Your task to perform on an android device: Open settings on Google Maps Image 0: 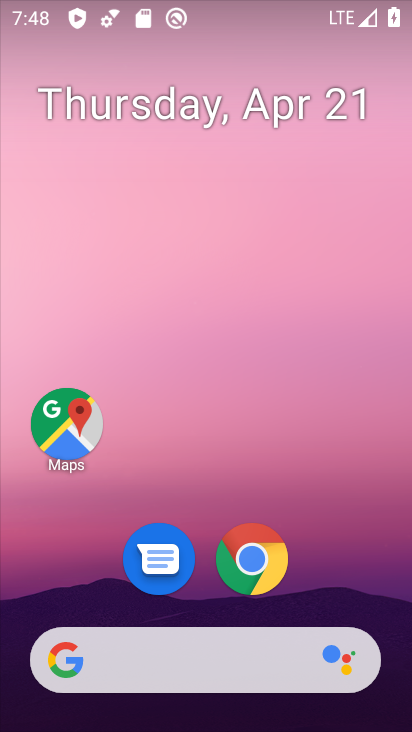
Step 0: drag from (382, 515) to (374, 148)
Your task to perform on an android device: Open settings on Google Maps Image 1: 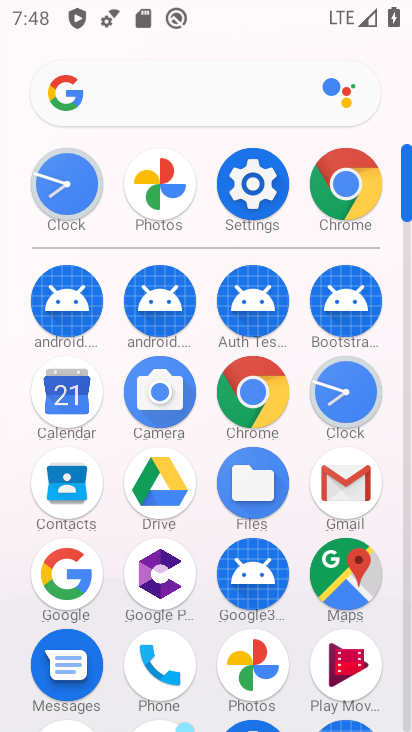
Step 1: click (345, 586)
Your task to perform on an android device: Open settings on Google Maps Image 2: 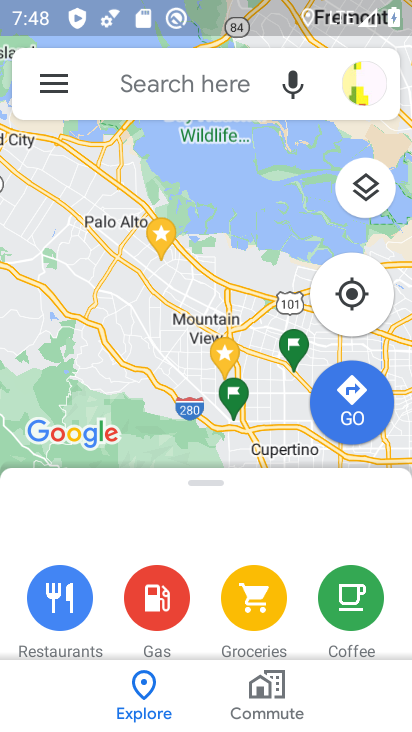
Step 2: click (54, 93)
Your task to perform on an android device: Open settings on Google Maps Image 3: 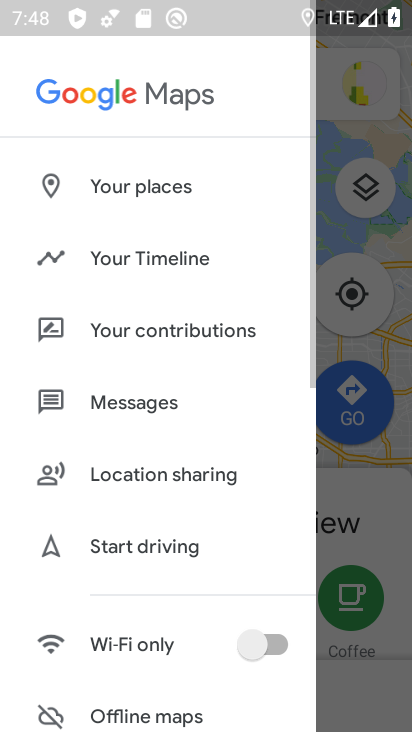
Step 3: click (109, 271)
Your task to perform on an android device: Open settings on Google Maps Image 4: 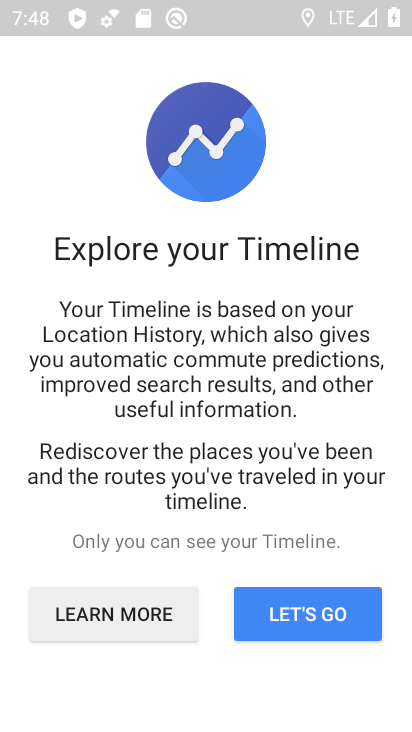
Step 4: click (297, 625)
Your task to perform on an android device: Open settings on Google Maps Image 5: 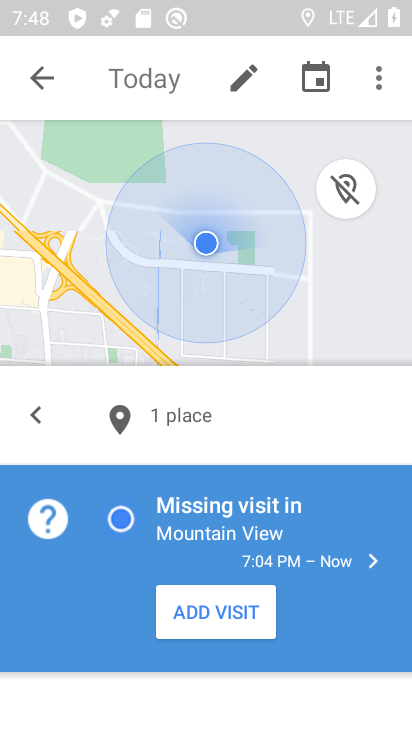
Step 5: click (385, 80)
Your task to perform on an android device: Open settings on Google Maps Image 6: 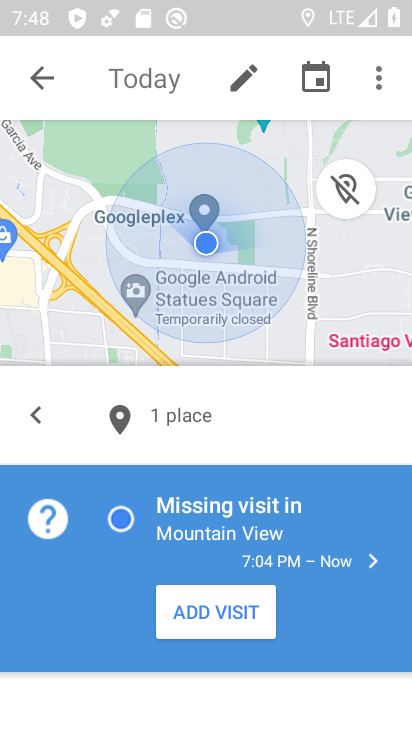
Step 6: click (378, 94)
Your task to perform on an android device: Open settings on Google Maps Image 7: 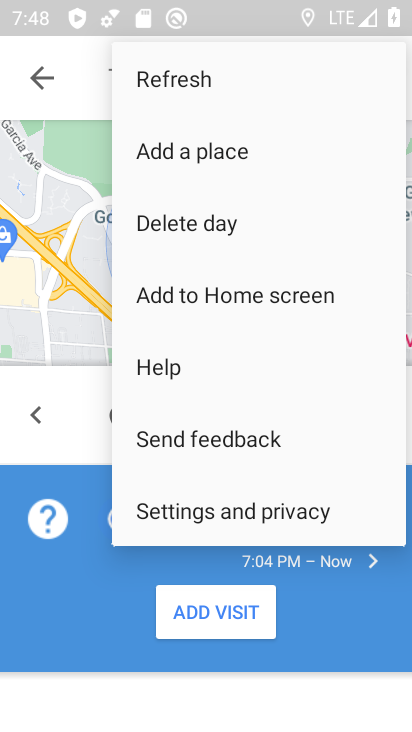
Step 7: click (203, 517)
Your task to perform on an android device: Open settings on Google Maps Image 8: 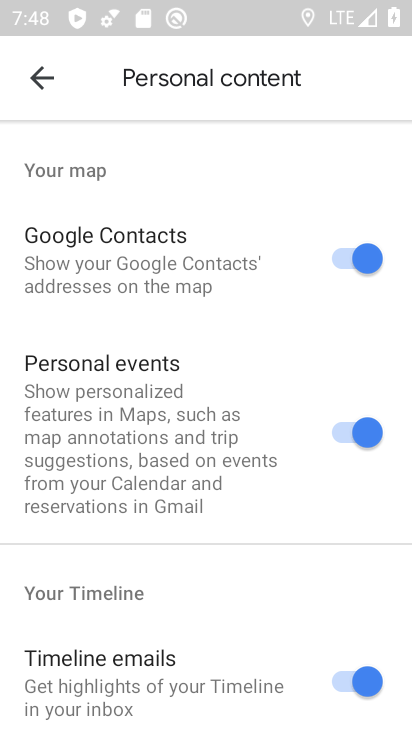
Step 8: task complete